Your task to perform on an android device: open app "eBay: The shopping marketplace" Image 0: 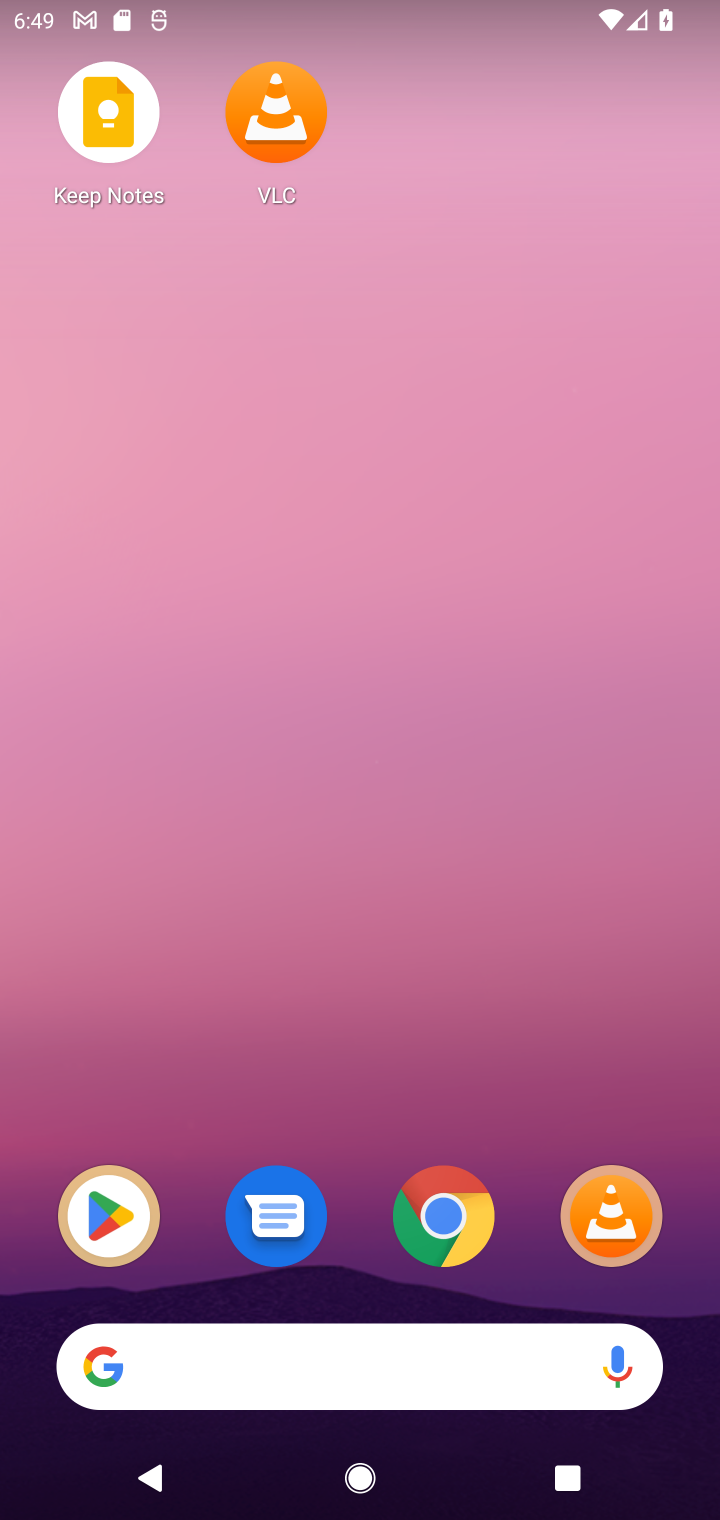
Step 0: press home button
Your task to perform on an android device: open app "eBay: The shopping marketplace" Image 1: 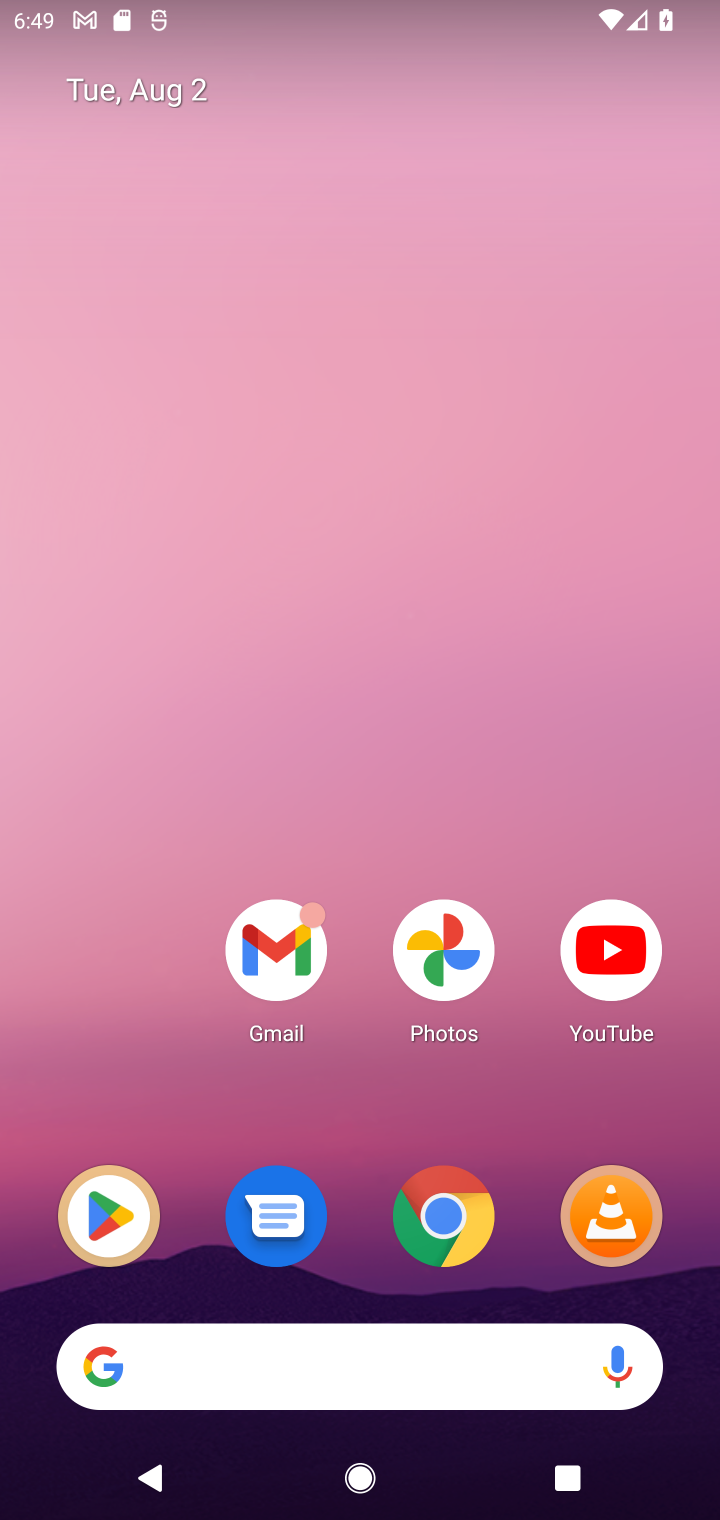
Step 1: click (118, 1221)
Your task to perform on an android device: open app "eBay: The shopping marketplace" Image 2: 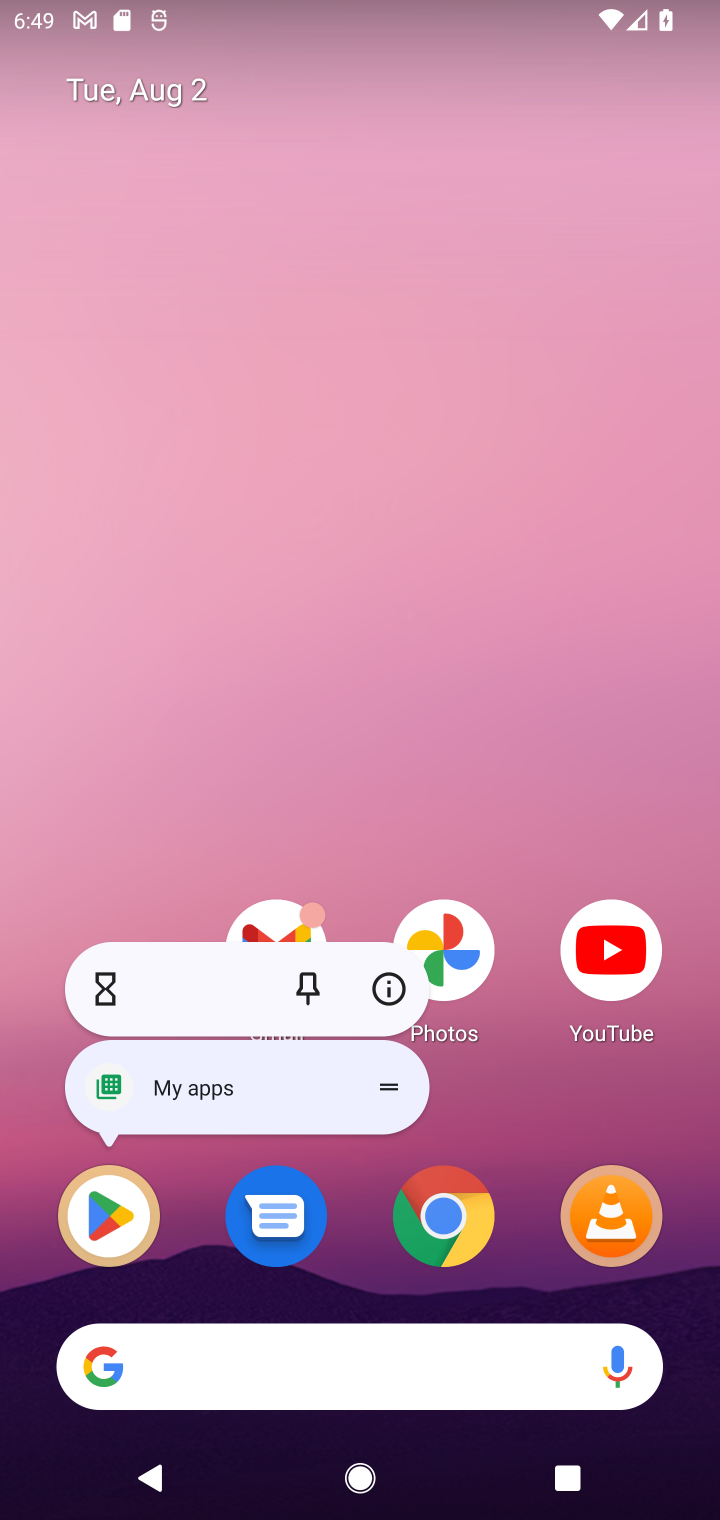
Step 2: click (118, 1221)
Your task to perform on an android device: open app "eBay: The shopping marketplace" Image 3: 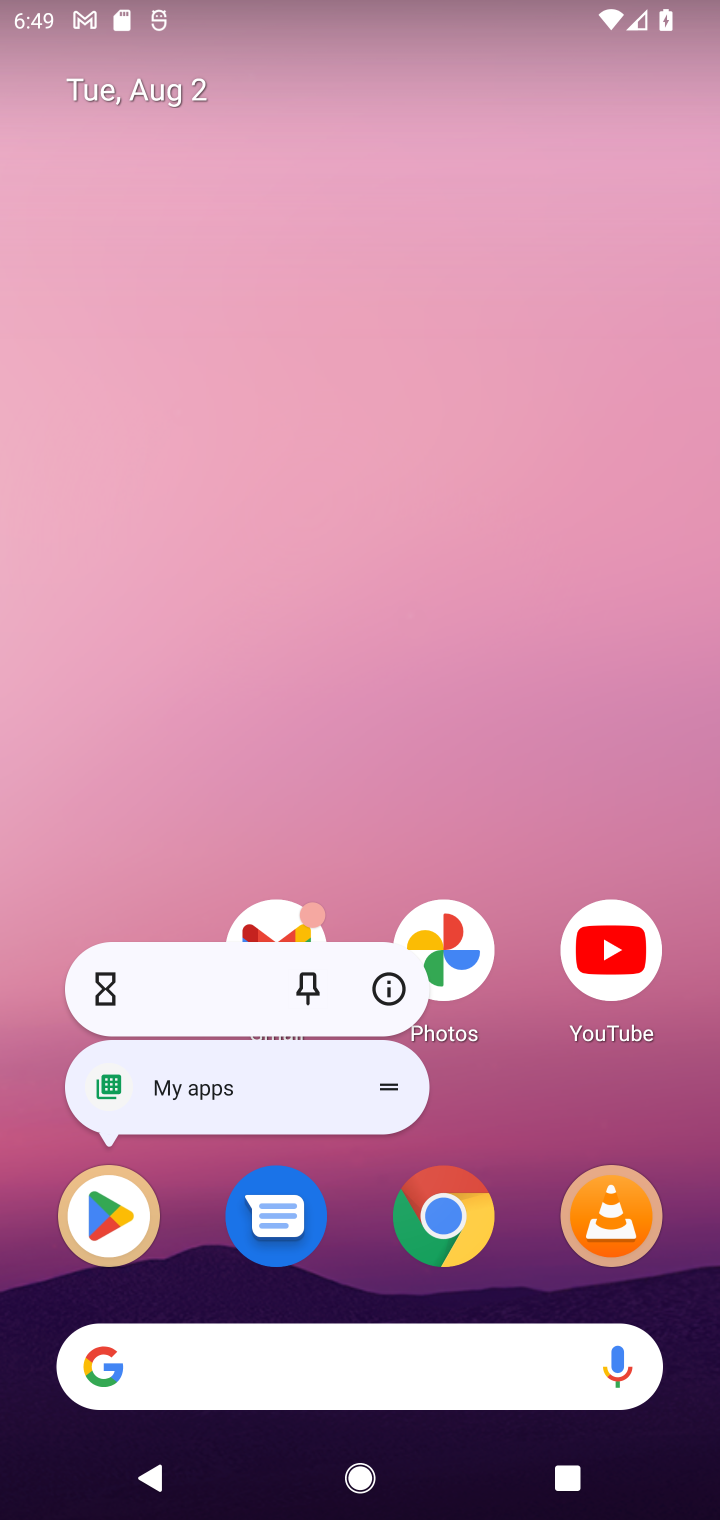
Step 3: click (118, 1221)
Your task to perform on an android device: open app "eBay: The shopping marketplace" Image 4: 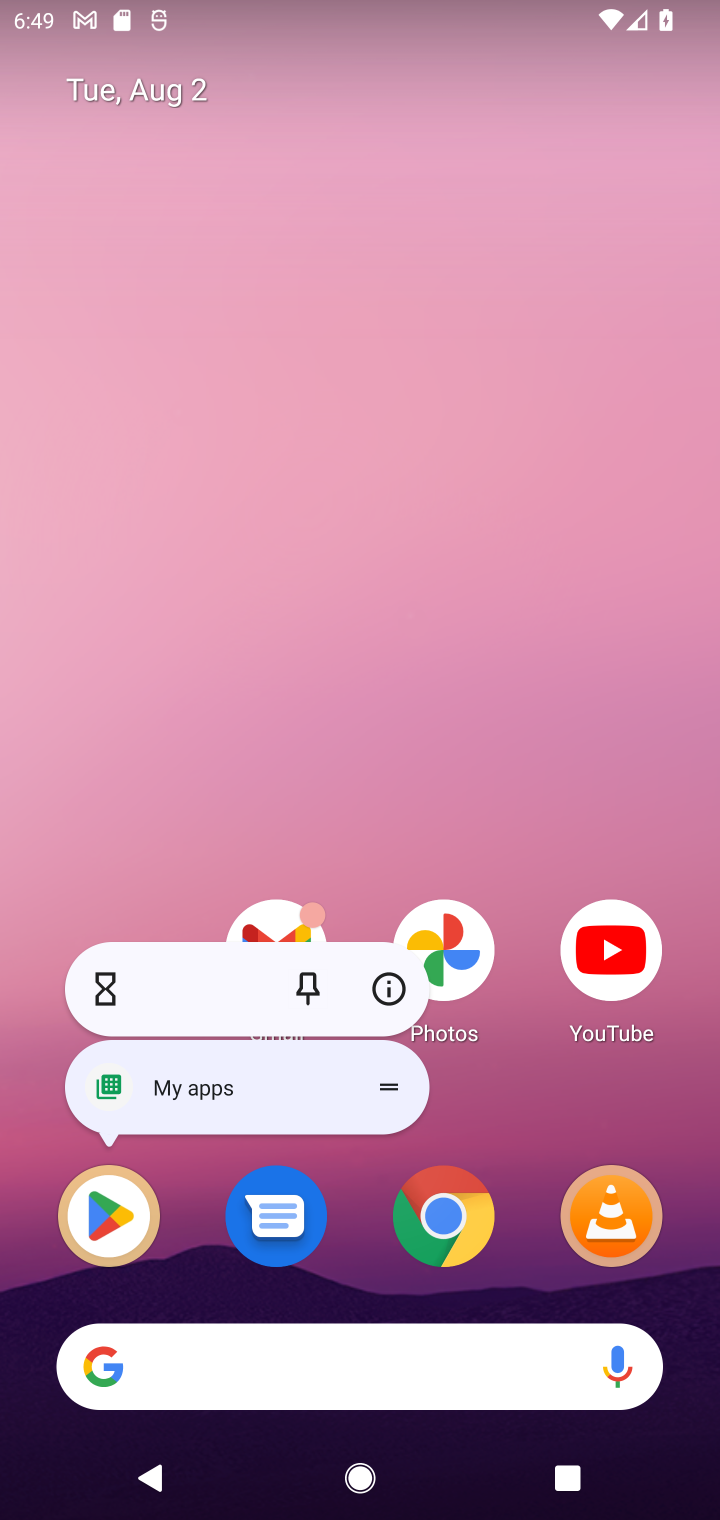
Step 4: click (118, 1228)
Your task to perform on an android device: open app "eBay: The shopping marketplace" Image 5: 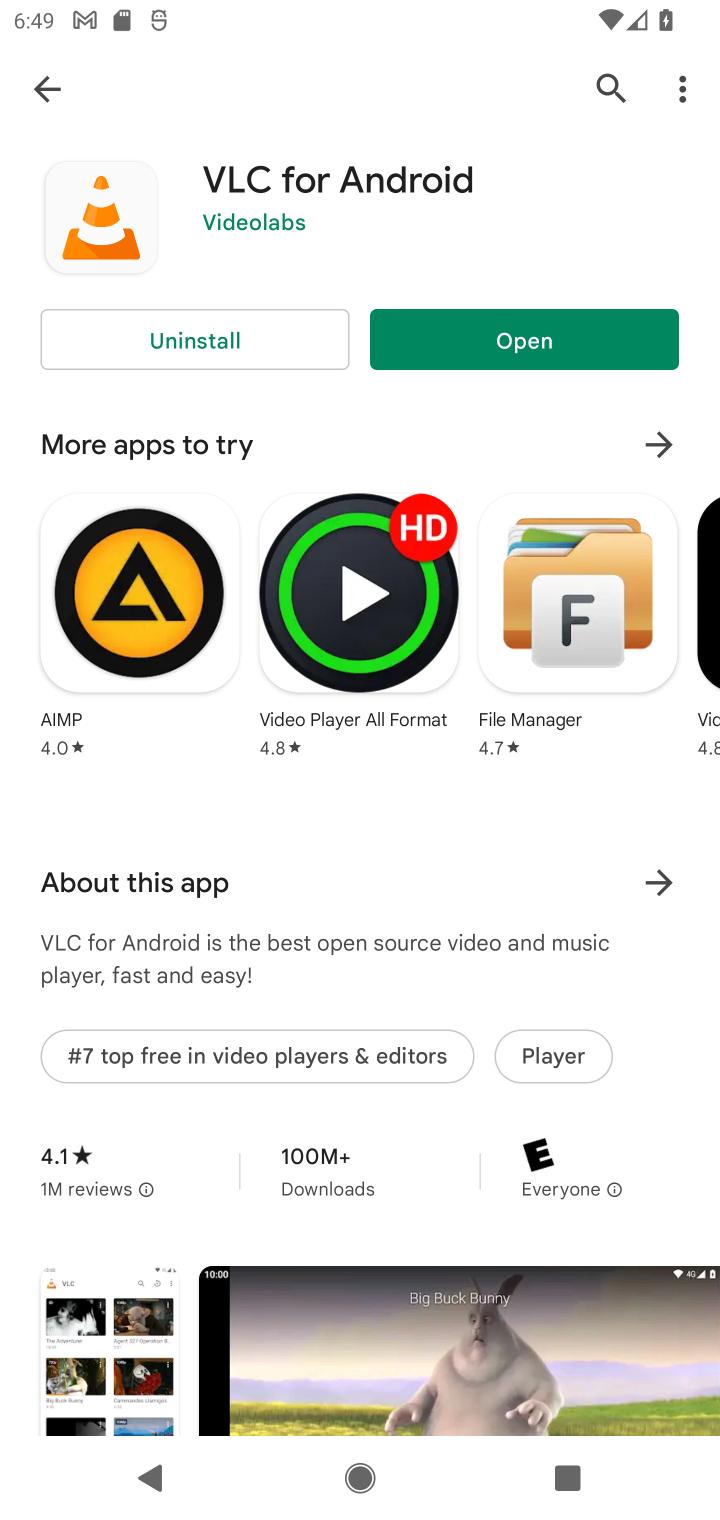
Step 5: click (608, 78)
Your task to perform on an android device: open app "eBay: The shopping marketplace" Image 6: 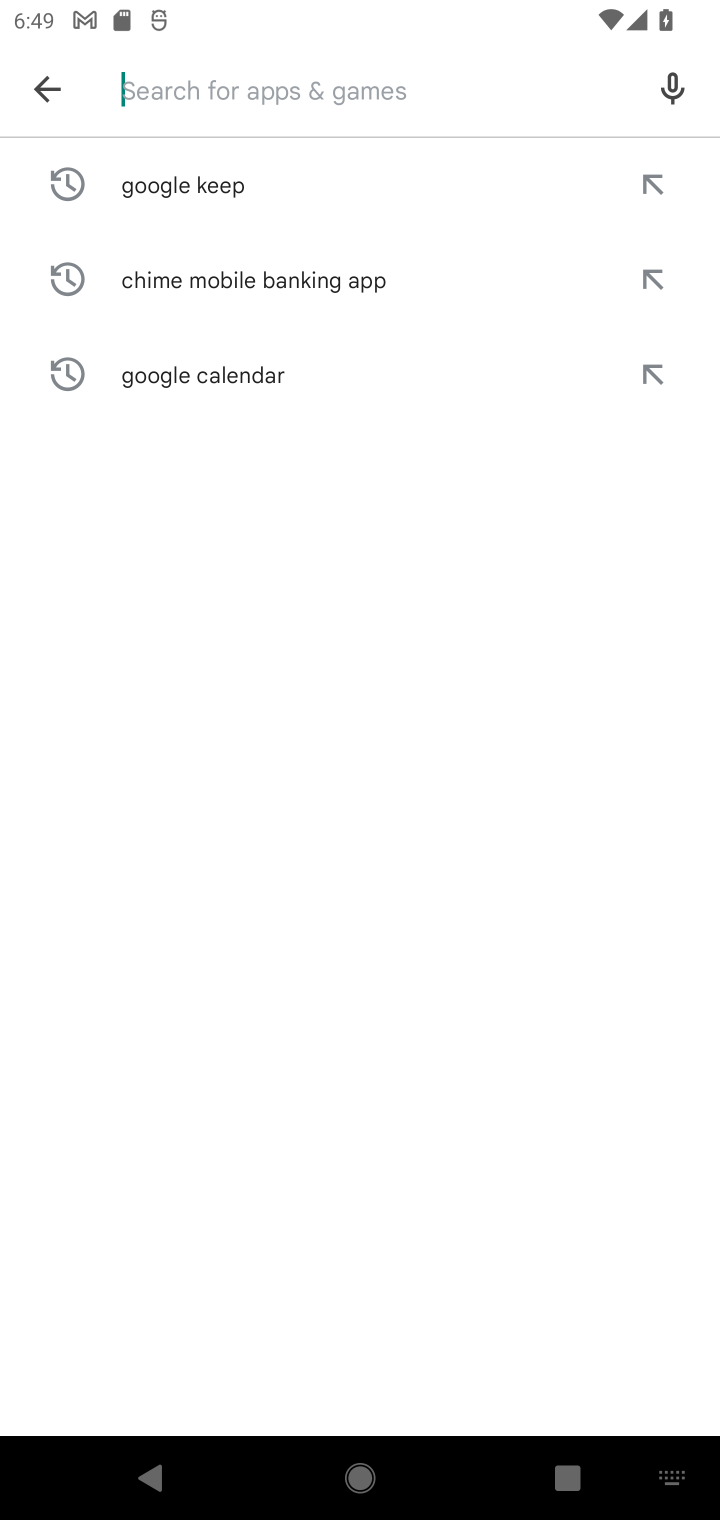
Step 6: type "eBay: The shopping marketplace"
Your task to perform on an android device: open app "eBay: The shopping marketplace" Image 7: 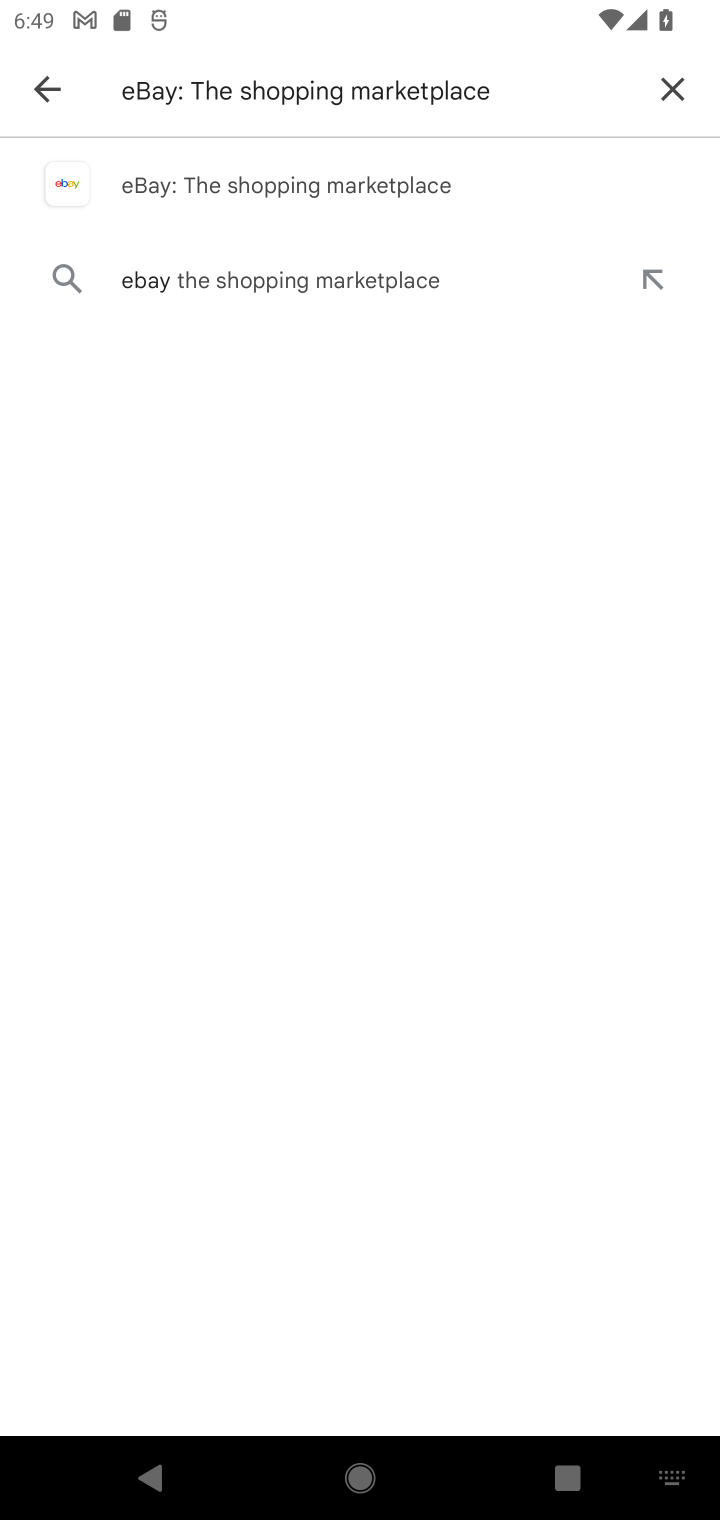
Step 7: click (276, 182)
Your task to perform on an android device: open app "eBay: The shopping marketplace" Image 8: 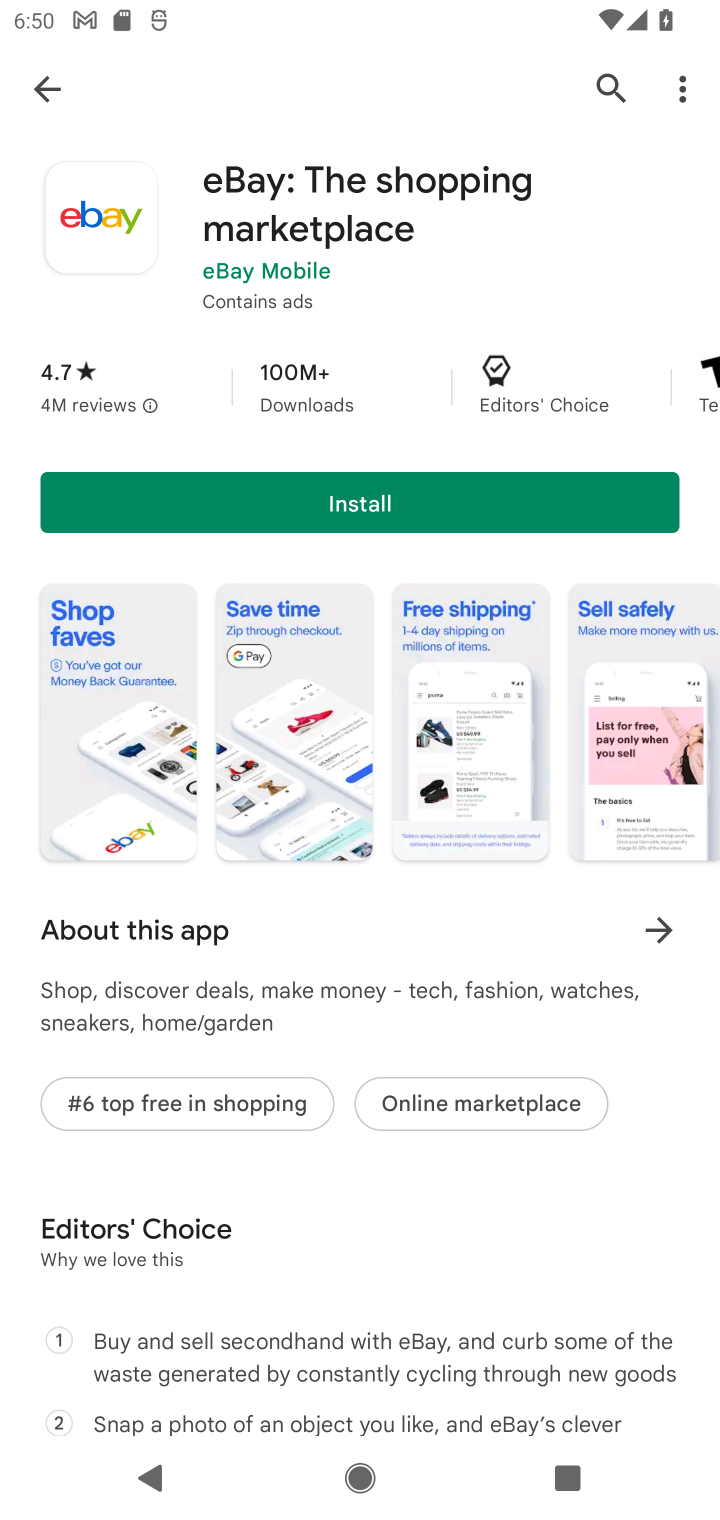
Step 8: task complete